Your task to perform on an android device: Go to Yahoo.com Image 0: 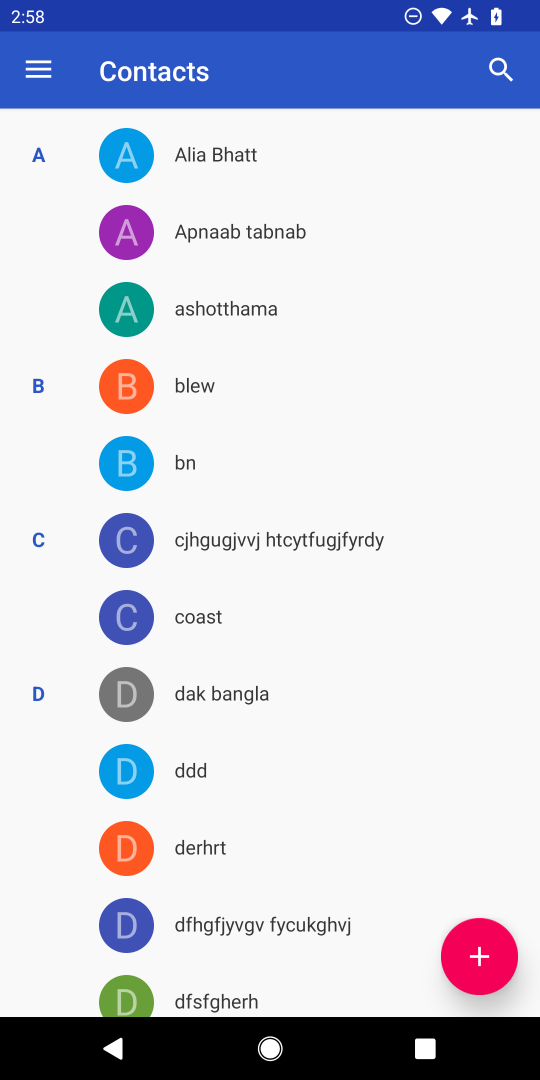
Step 0: press home button
Your task to perform on an android device: Go to Yahoo.com Image 1: 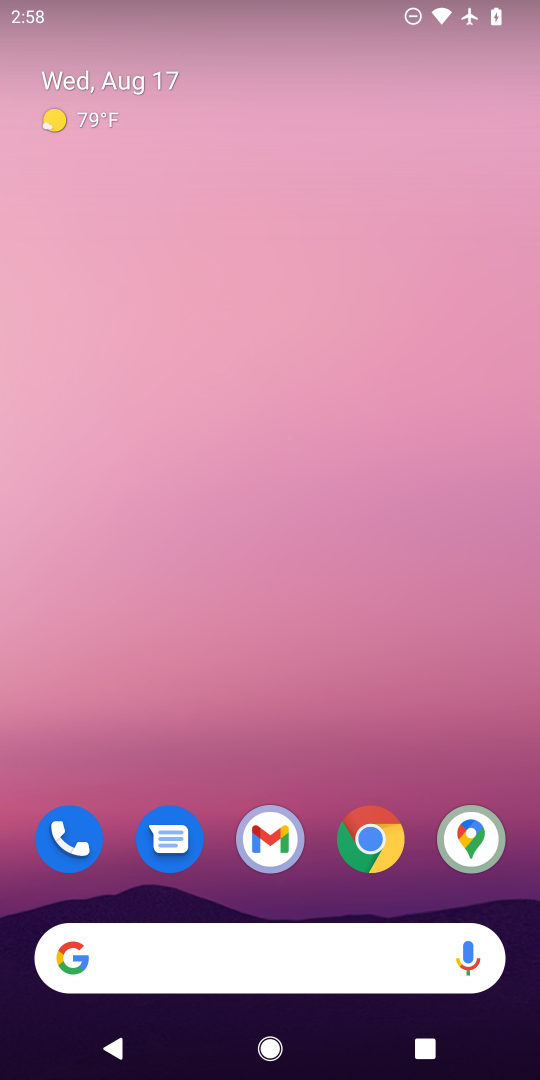
Step 1: click (374, 838)
Your task to perform on an android device: Go to Yahoo.com Image 2: 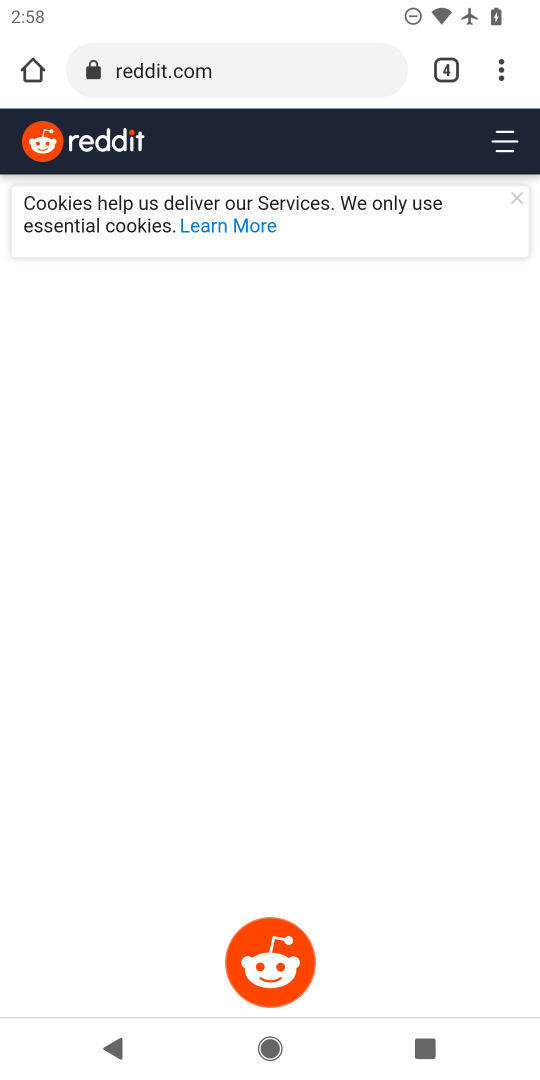
Step 2: click (504, 79)
Your task to perform on an android device: Go to Yahoo.com Image 3: 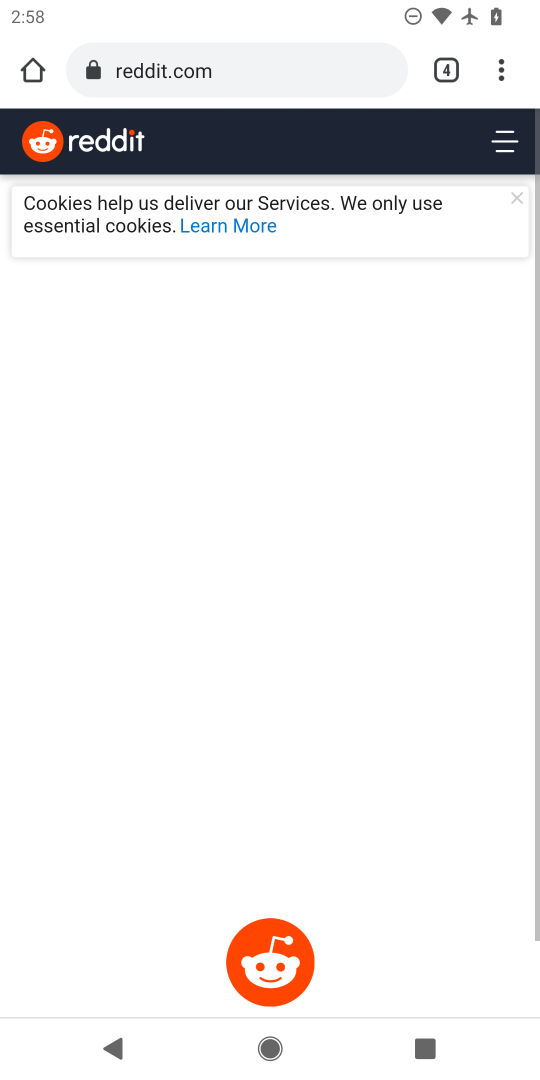
Step 3: click (504, 79)
Your task to perform on an android device: Go to Yahoo.com Image 4: 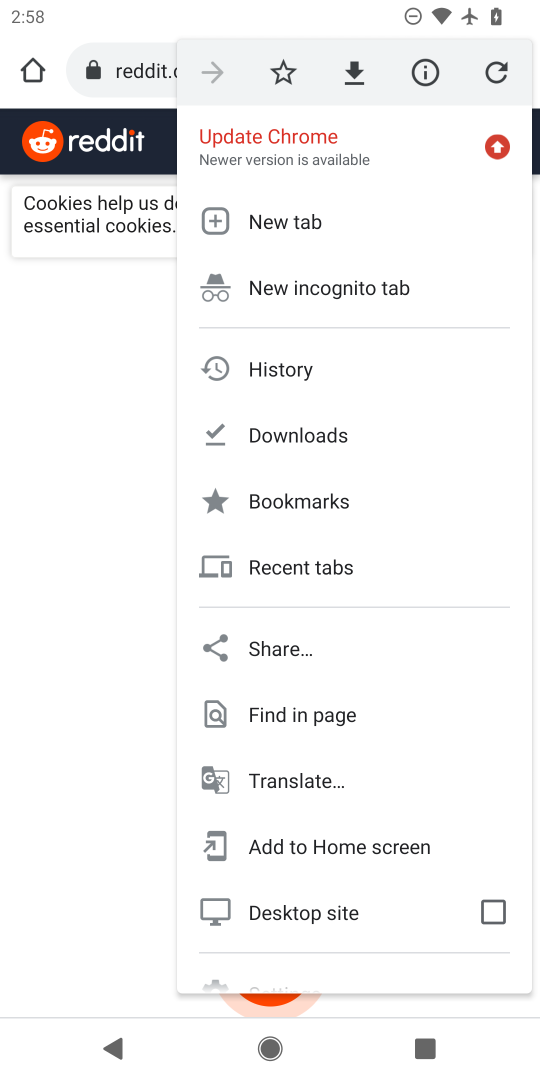
Step 4: click (257, 217)
Your task to perform on an android device: Go to Yahoo.com Image 5: 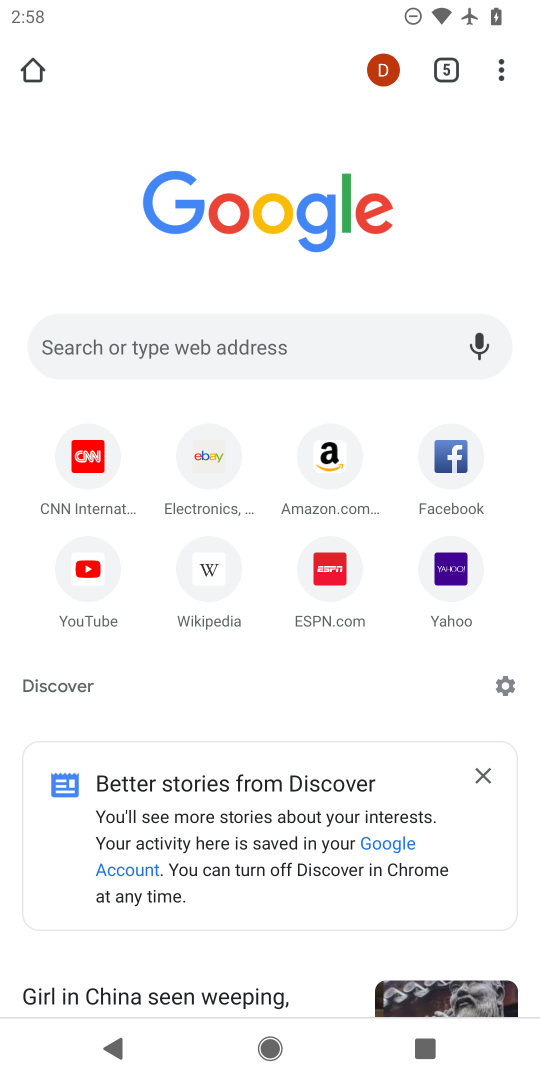
Step 5: click (447, 567)
Your task to perform on an android device: Go to Yahoo.com Image 6: 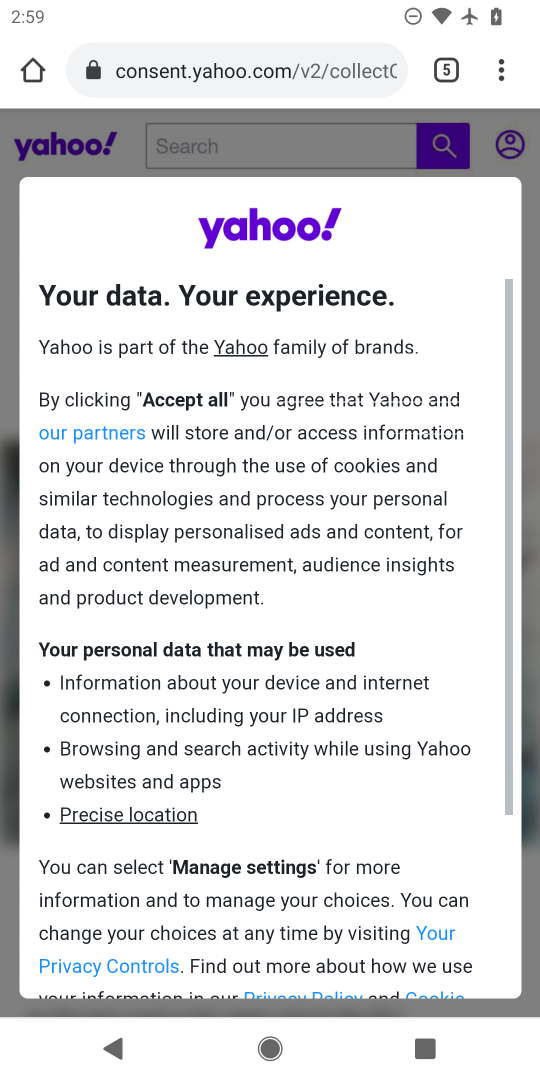
Step 6: drag from (256, 952) to (269, 432)
Your task to perform on an android device: Go to Yahoo.com Image 7: 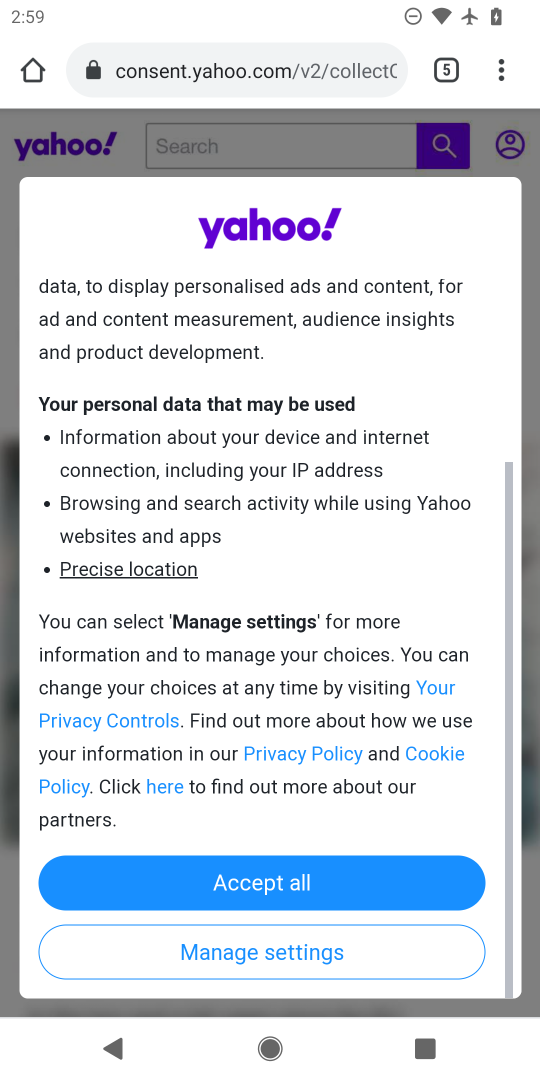
Step 7: click (252, 884)
Your task to perform on an android device: Go to Yahoo.com Image 8: 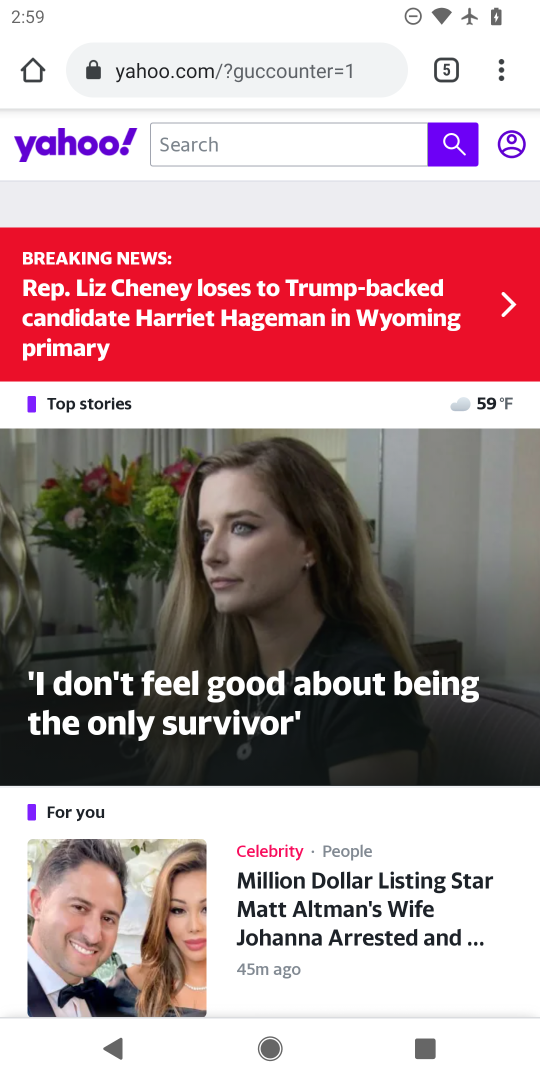
Step 8: task complete